Your task to perform on an android device: What's on my calendar today? Image 0: 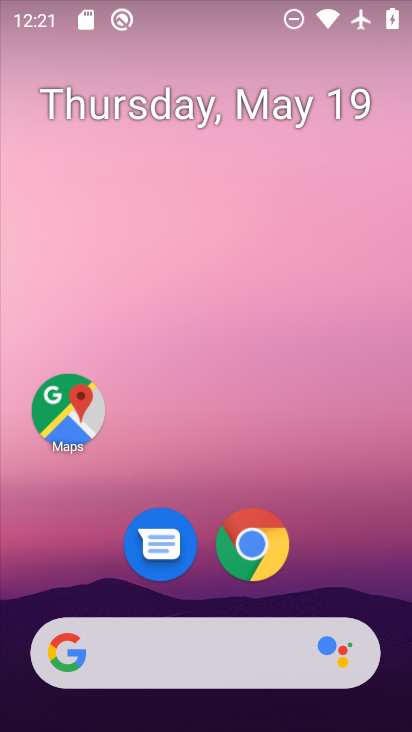
Step 0: drag from (340, 581) to (245, 197)
Your task to perform on an android device: What's on my calendar today? Image 1: 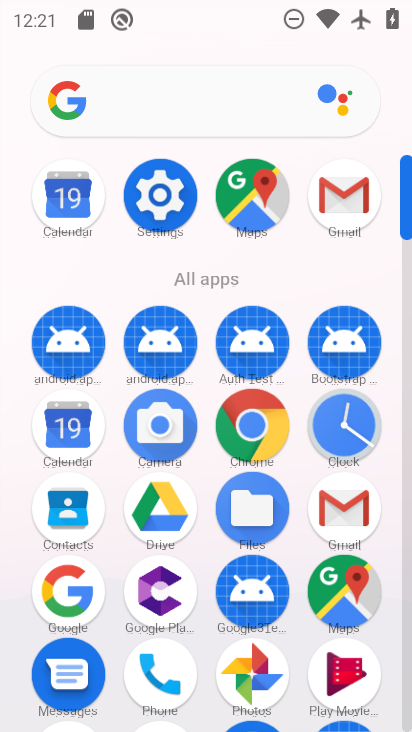
Step 1: click (77, 221)
Your task to perform on an android device: What's on my calendar today? Image 2: 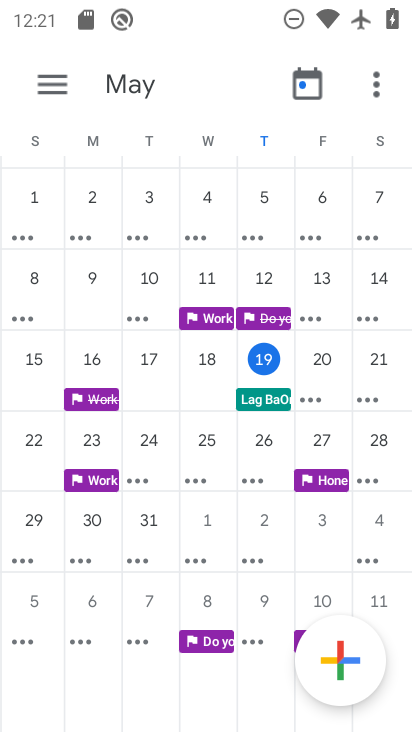
Step 2: task complete